Your task to perform on an android device: Go to display settings Image 0: 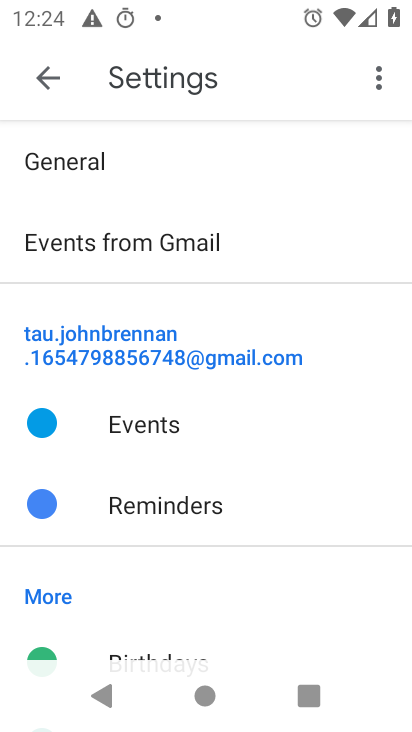
Step 0: press back button
Your task to perform on an android device: Go to display settings Image 1: 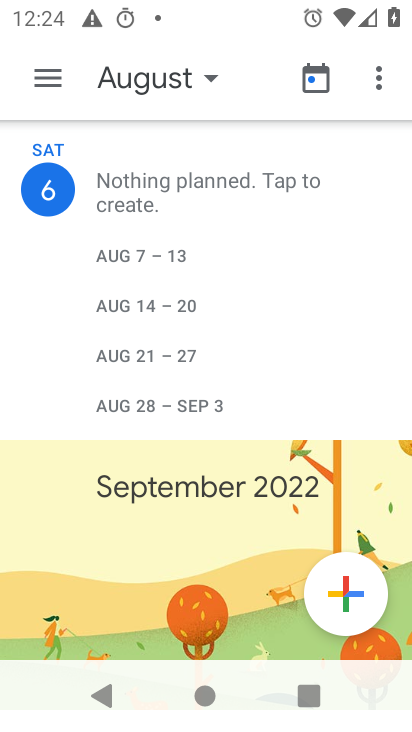
Step 1: press back button
Your task to perform on an android device: Go to display settings Image 2: 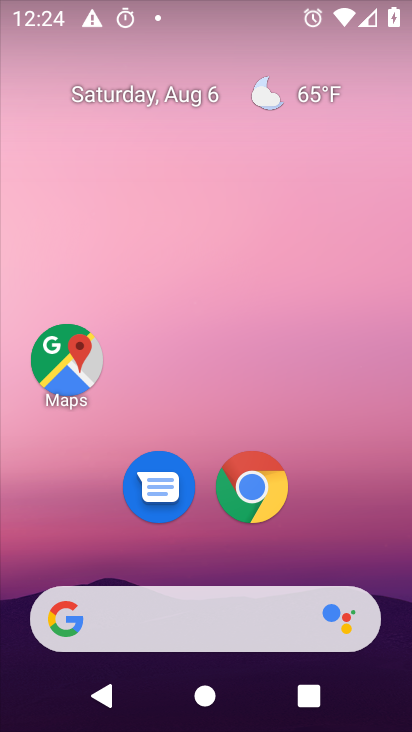
Step 2: drag from (208, 543) to (246, 67)
Your task to perform on an android device: Go to display settings Image 3: 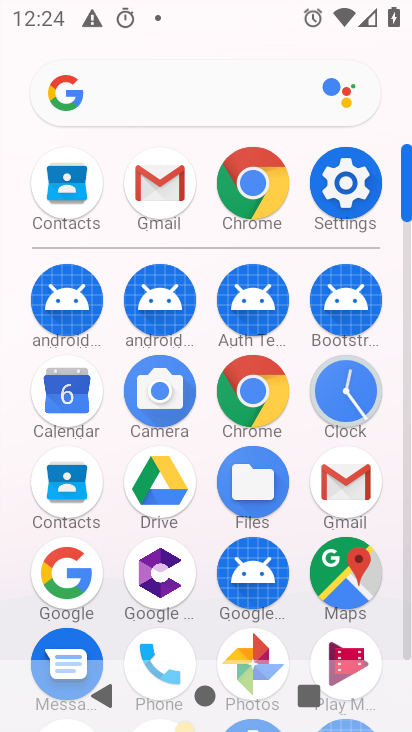
Step 3: click (343, 192)
Your task to perform on an android device: Go to display settings Image 4: 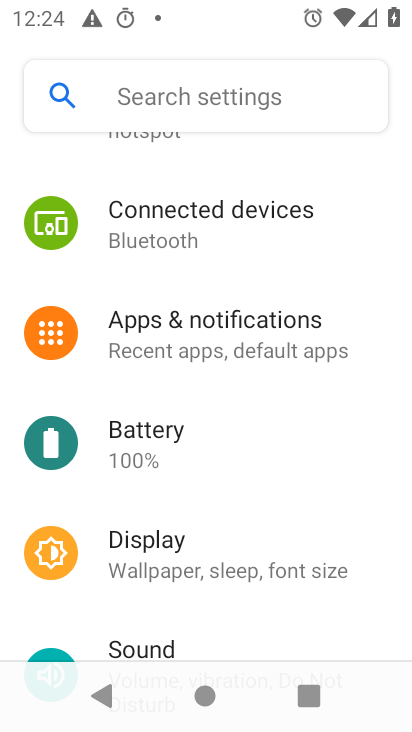
Step 4: click (184, 555)
Your task to perform on an android device: Go to display settings Image 5: 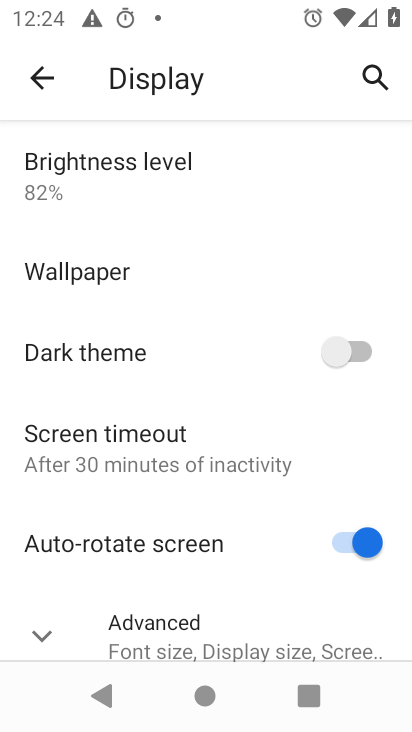
Step 5: task complete